Your task to perform on an android device: Show me the alarms in the clock app Image 0: 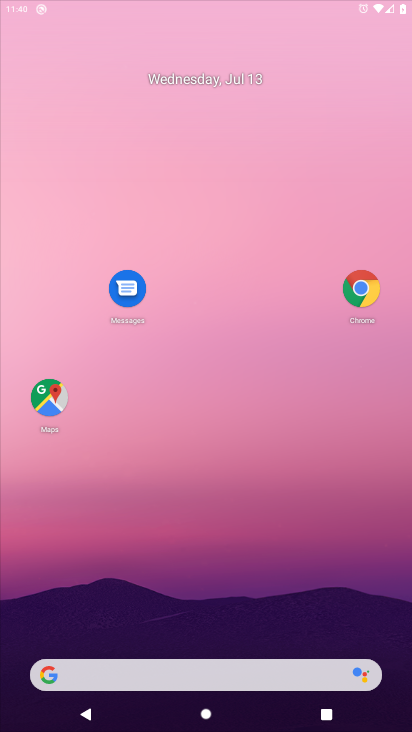
Step 0: click (403, 11)
Your task to perform on an android device: Show me the alarms in the clock app Image 1: 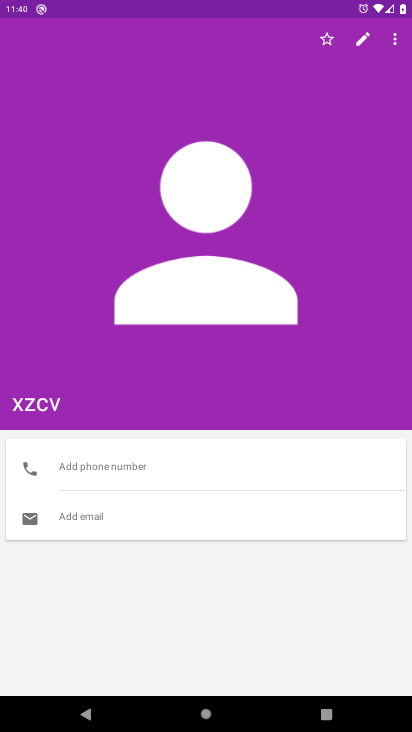
Step 1: press home button
Your task to perform on an android device: Show me the alarms in the clock app Image 2: 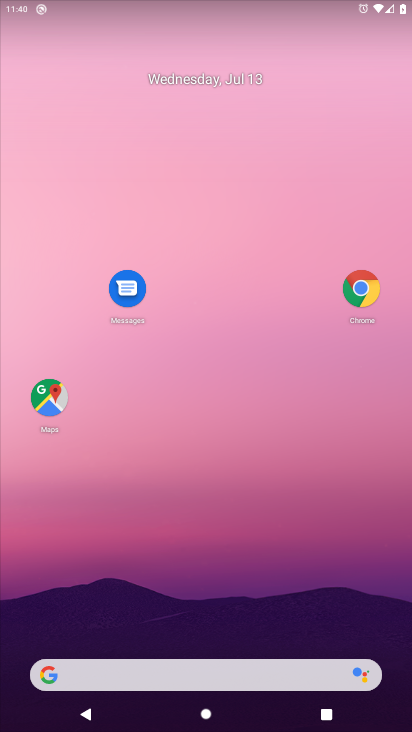
Step 2: drag from (37, 699) to (162, 80)
Your task to perform on an android device: Show me the alarms in the clock app Image 3: 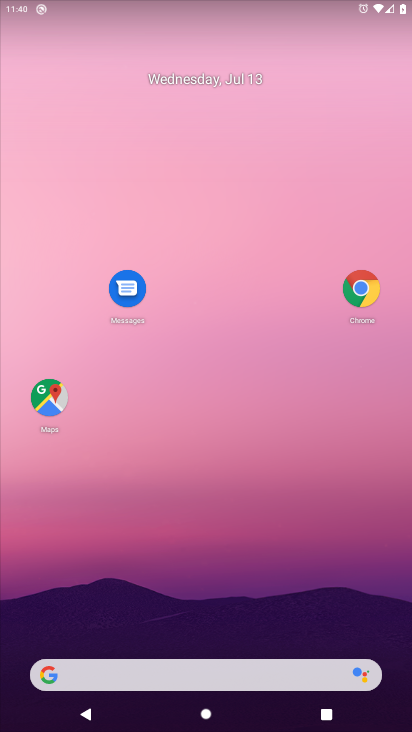
Step 3: drag from (18, 719) to (166, 203)
Your task to perform on an android device: Show me the alarms in the clock app Image 4: 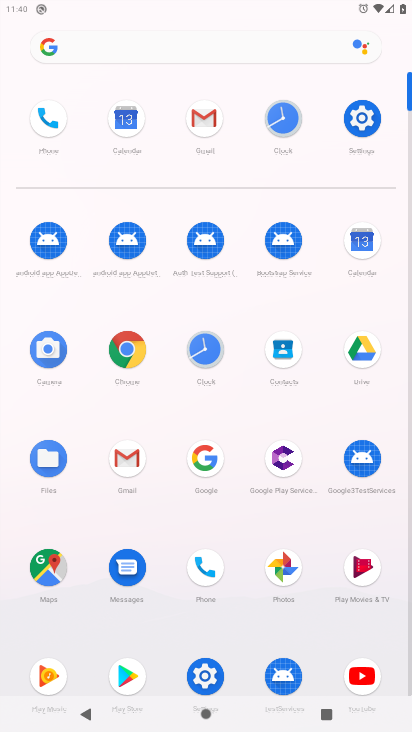
Step 4: click (204, 349)
Your task to perform on an android device: Show me the alarms in the clock app Image 5: 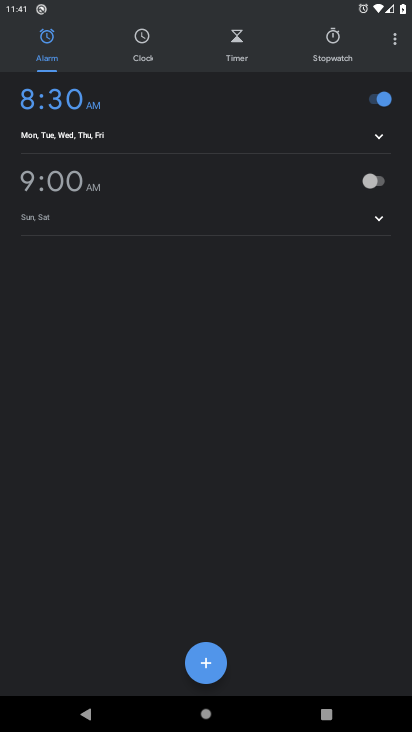
Step 5: task complete